Your task to perform on an android device: turn off picture-in-picture Image 0: 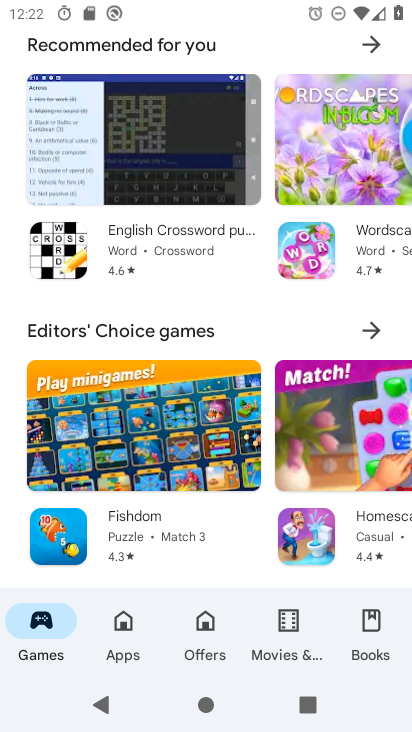
Step 0: press home button
Your task to perform on an android device: turn off picture-in-picture Image 1: 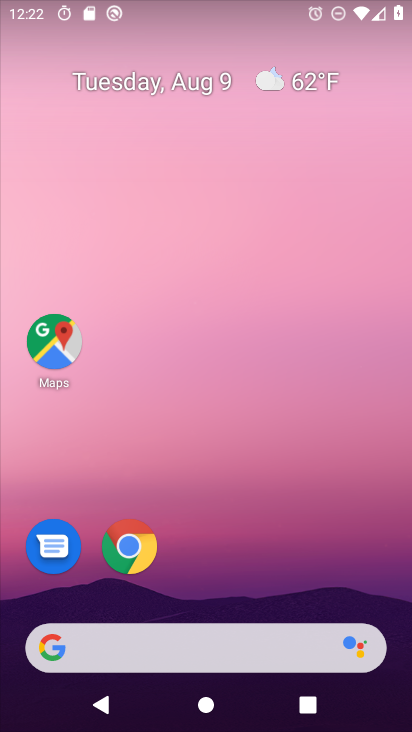
Step 1: drag from (227, 605) to (234, 572)
Your task to perform on an android device: turn off picture-in-picture Image 2: 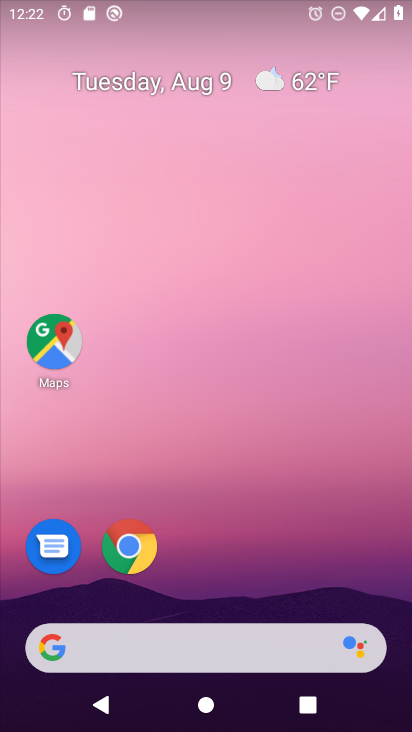
Step 2: click (128, 540)
Your task to perform on an android device: turn off picture-in-picture Image 3: 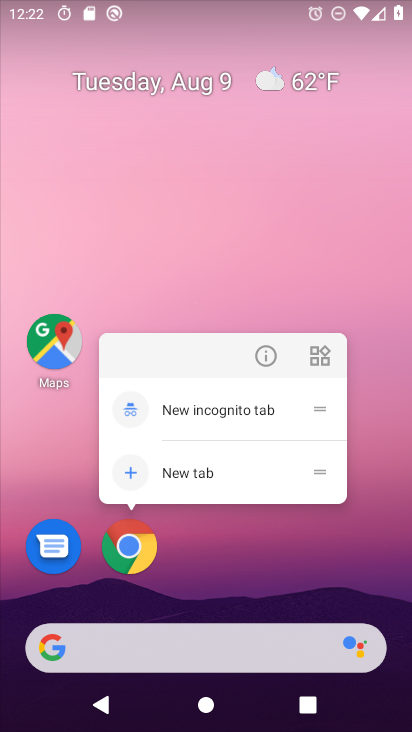
Step 3: click (267, 350)
Your task to perform on an android device: turn off picture-in-picture Image 4: 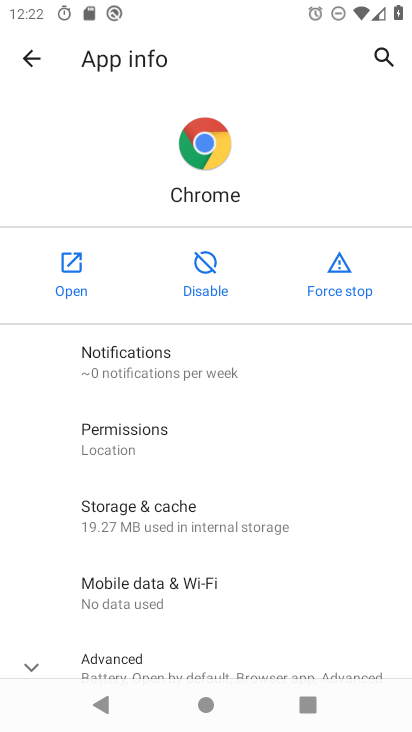
Step 4: drag from (244, 632) to (272, 235)
Your task to perform on an android device: turn off picture-in-picture Image 5: 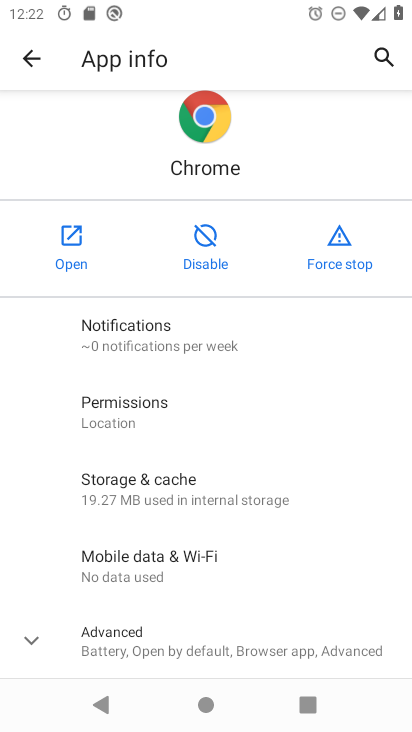
Step 5: click (31, 636)
Your task to perform on an android device: turn off picture-in-picture Image 6: 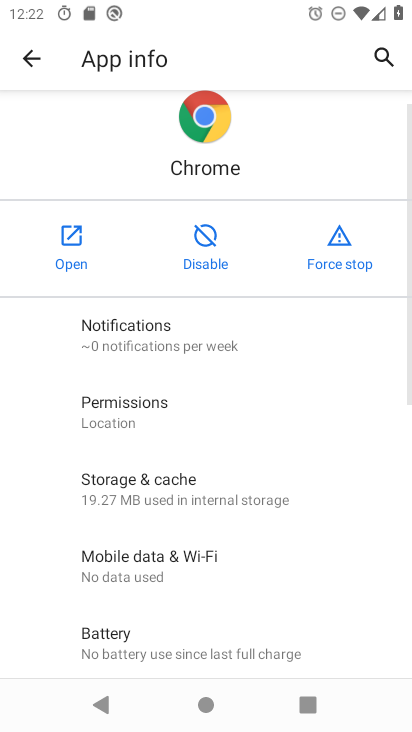
Step 6: drag from (237, 508) to (266, 103)
Your task to perform on an android device: turn off picture-in-picture Image 7: 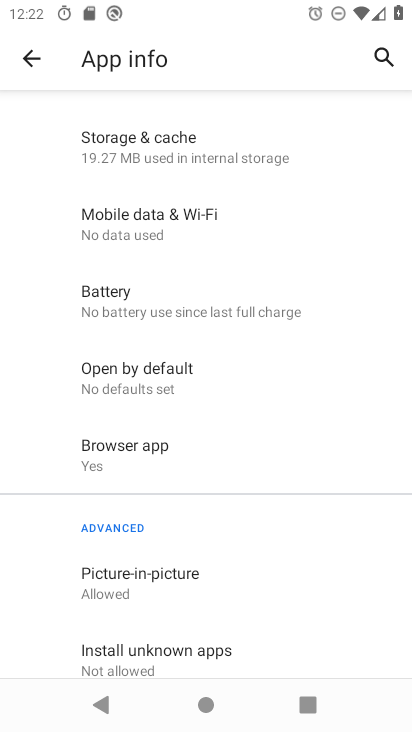
Step 7: click (137, 585)
Your task to perform on an android device: turn off picture-in-picture Image 8: 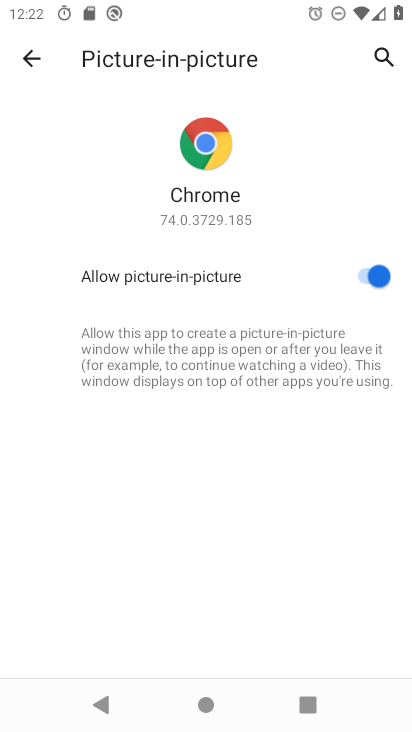
Step 8: click (361, 269)
Your task to perform on an android device: turn off picture-in-picture Image 9: 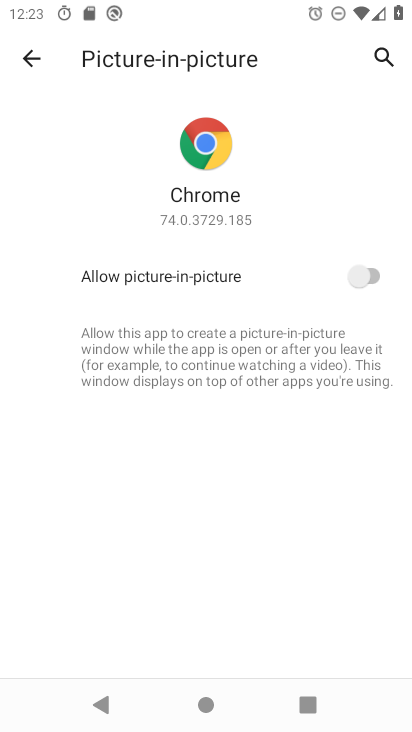
Step 9: task complete